Your task to perform on an android device: Open Google Maps Image 0: 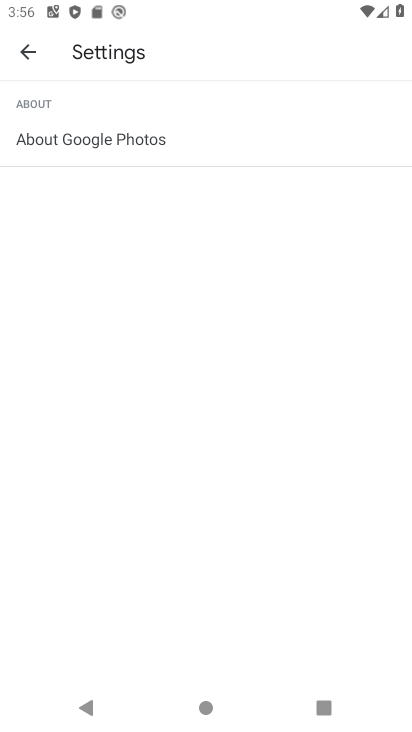
Step 0: press home button
Your task to perform on an android device: Open Google Maps Image 1: 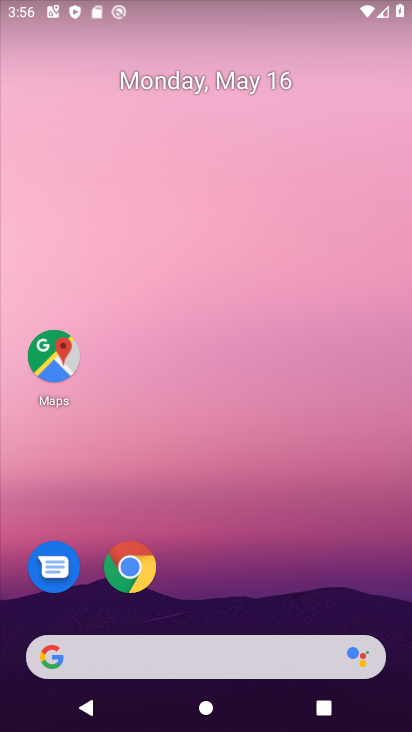
Step 1: drag from (271, 621) to (335, 1)
Your task to perform on an android device: Open Google Maps Image 2: 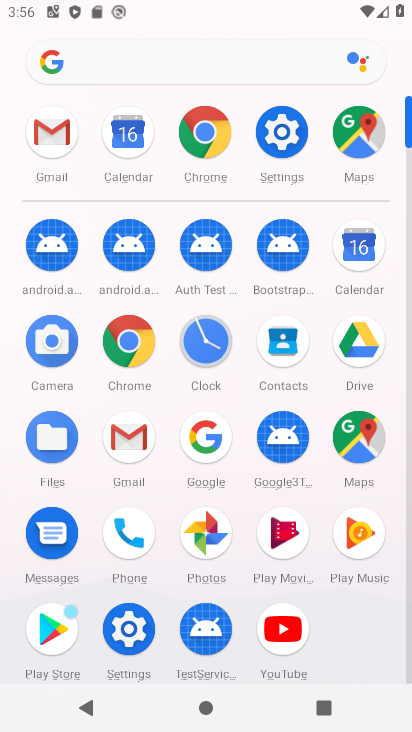
Step 2: click (368, 439)
Your task to perform on an android device: Open Google Maps Image 3: 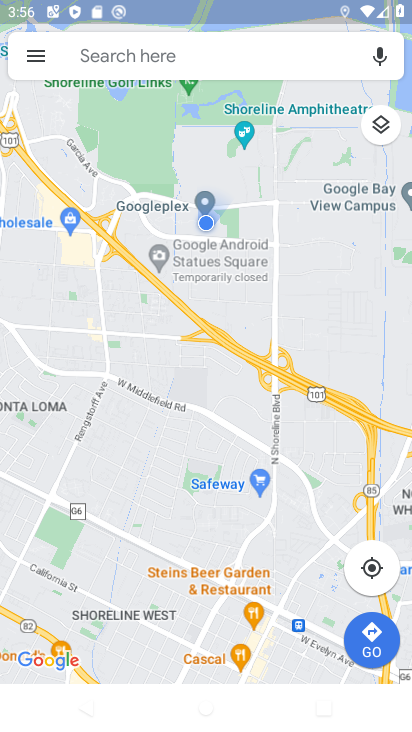
Step 3: task complete